Your task to perform on an android device: stop showing notifications on the lock screen Image 0: 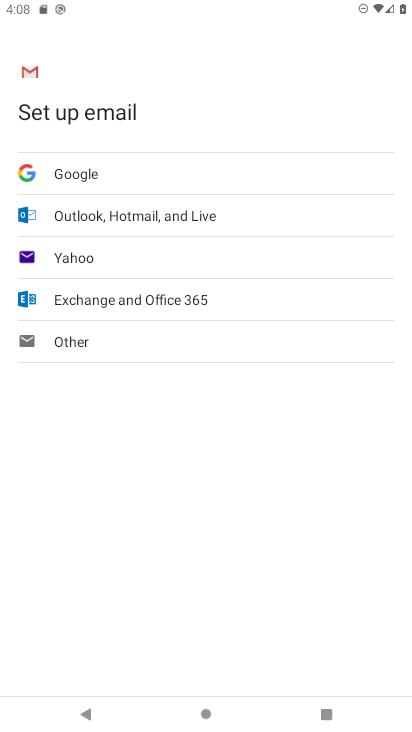
Step 0: press home button
Your task to perform on an android device: stop showing notifications on the lock screen Image 1: 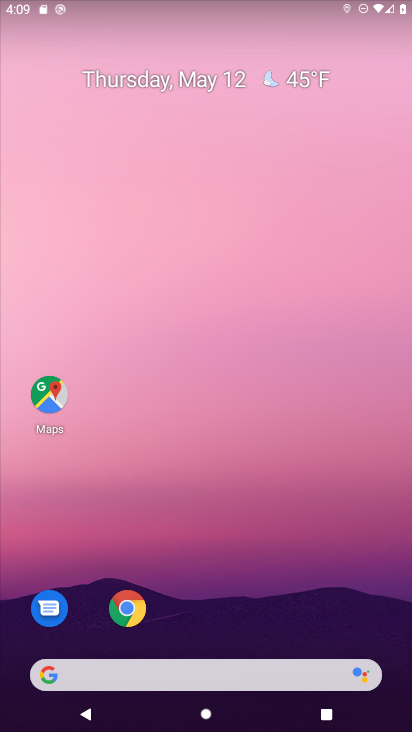
Step 1: drag from (314, 619) to (289, 153)
Your task to perform on an android device: stop showing notifications on the lock screen Image 2: 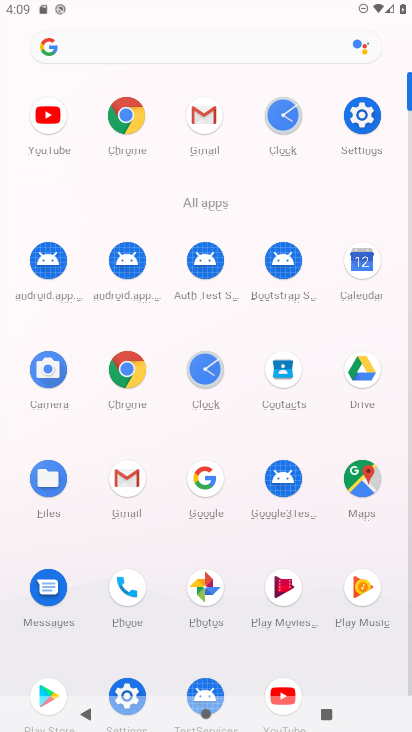
Step 2: click (336, 131)
Your task to perform on an android device: stop showing notifications on the lock screen Image 3: 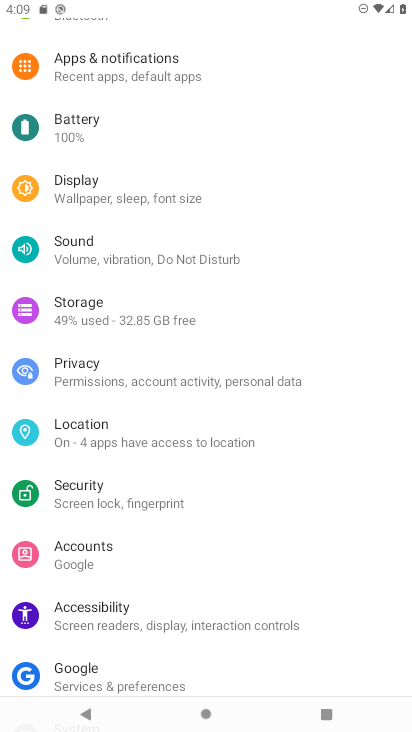
Step 3: drag from (155, 249) to (137, 443)
Your task to perform on an android device: stop showing notifications on the lock screen Image 4: 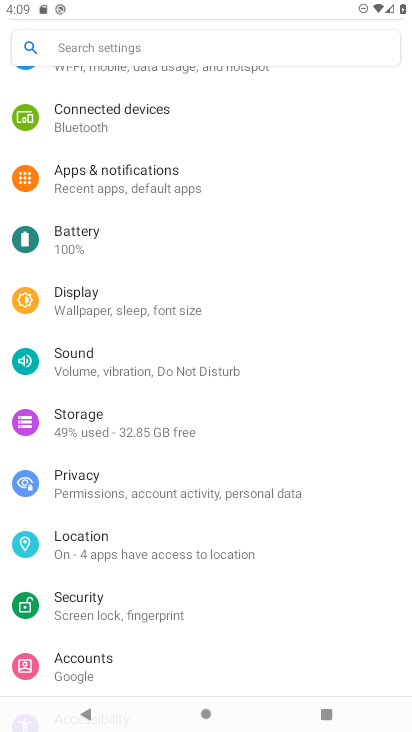
Step 4: click (114, 189)
Your task to perform on an android device: stop showing notifications on the lock screen Image 5: 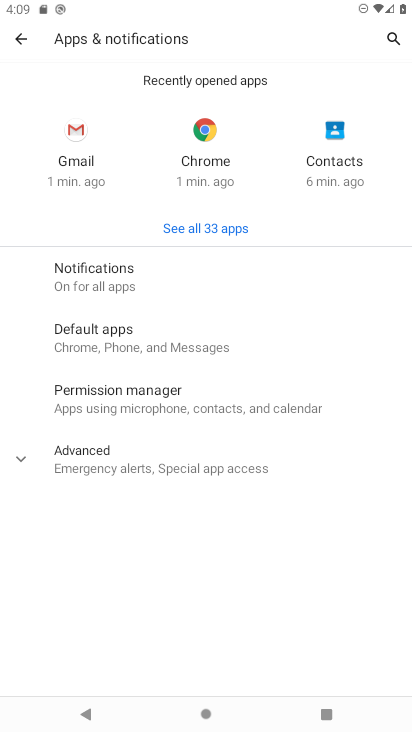
Step 5: click (80, 280)
Your task to perform on an android device: stop showing notifications on the lock screen Image 6: 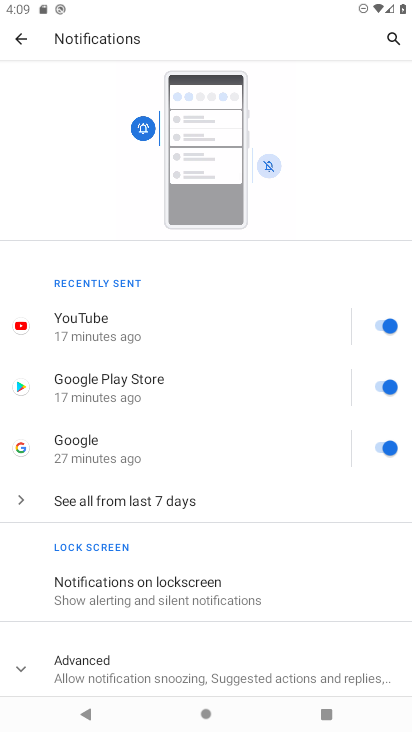
Step 6: click (175, 578)
Your task to perform on an android device: stop showing notifications on the lock screen Image 7: 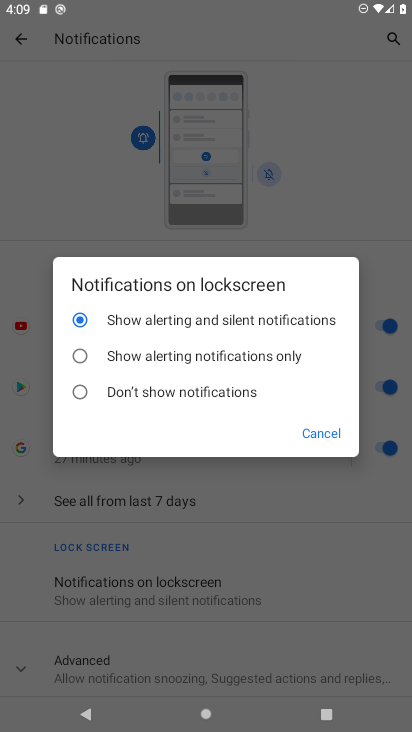
Step 7: click (129, 385)
Your task to perform on an android device: stop showing notifications on the lock screen Image 8: 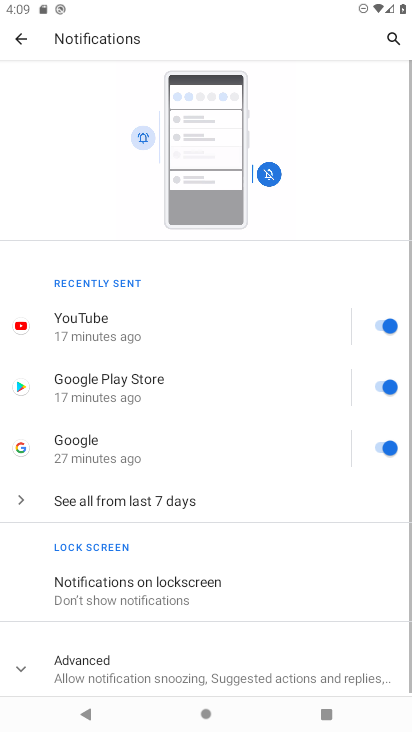
Step 8: task complete